Your task to perform on an android device: uninstall "Microsoft Excel" Image 0: 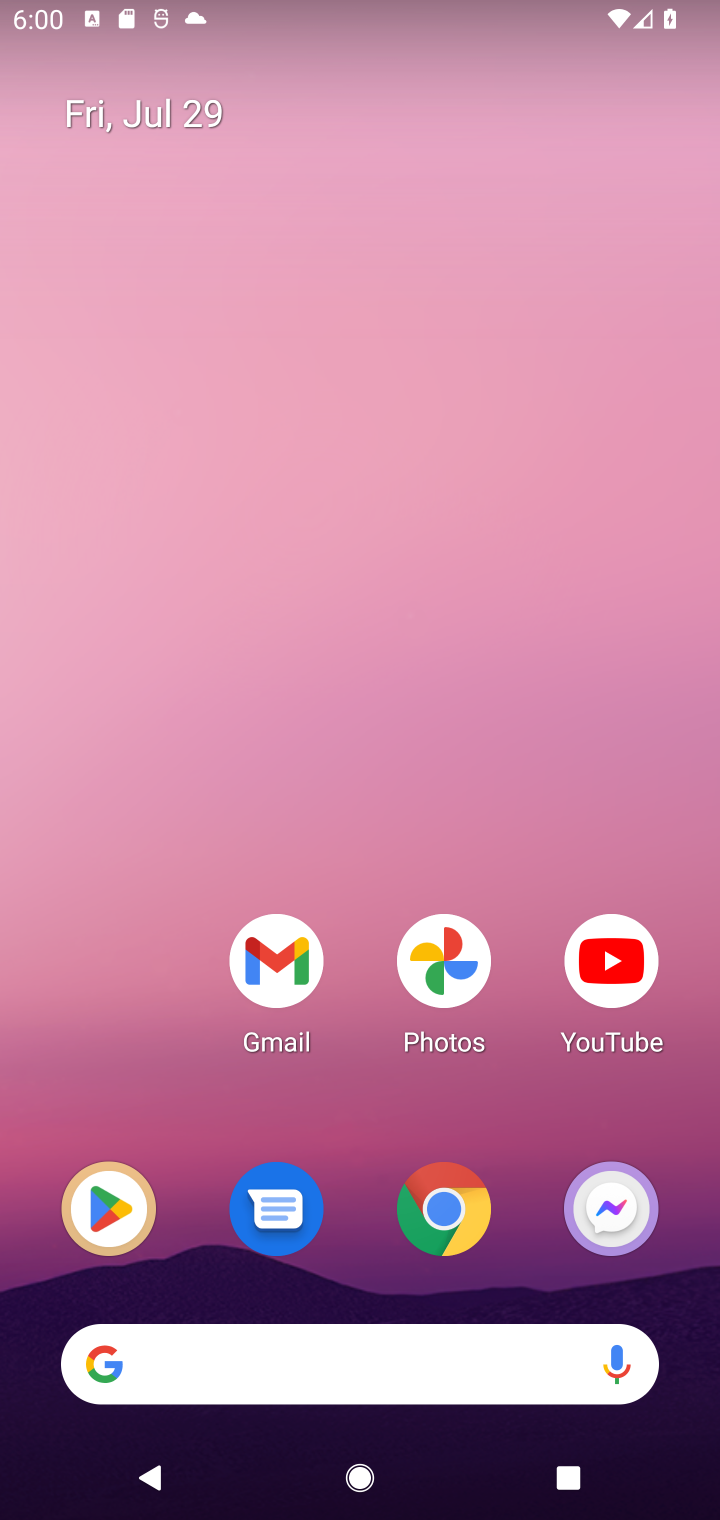
Step 0: click (117, 1219)
Your task to perform on an android device: uninstall "Microsoft Excel" Image 1: 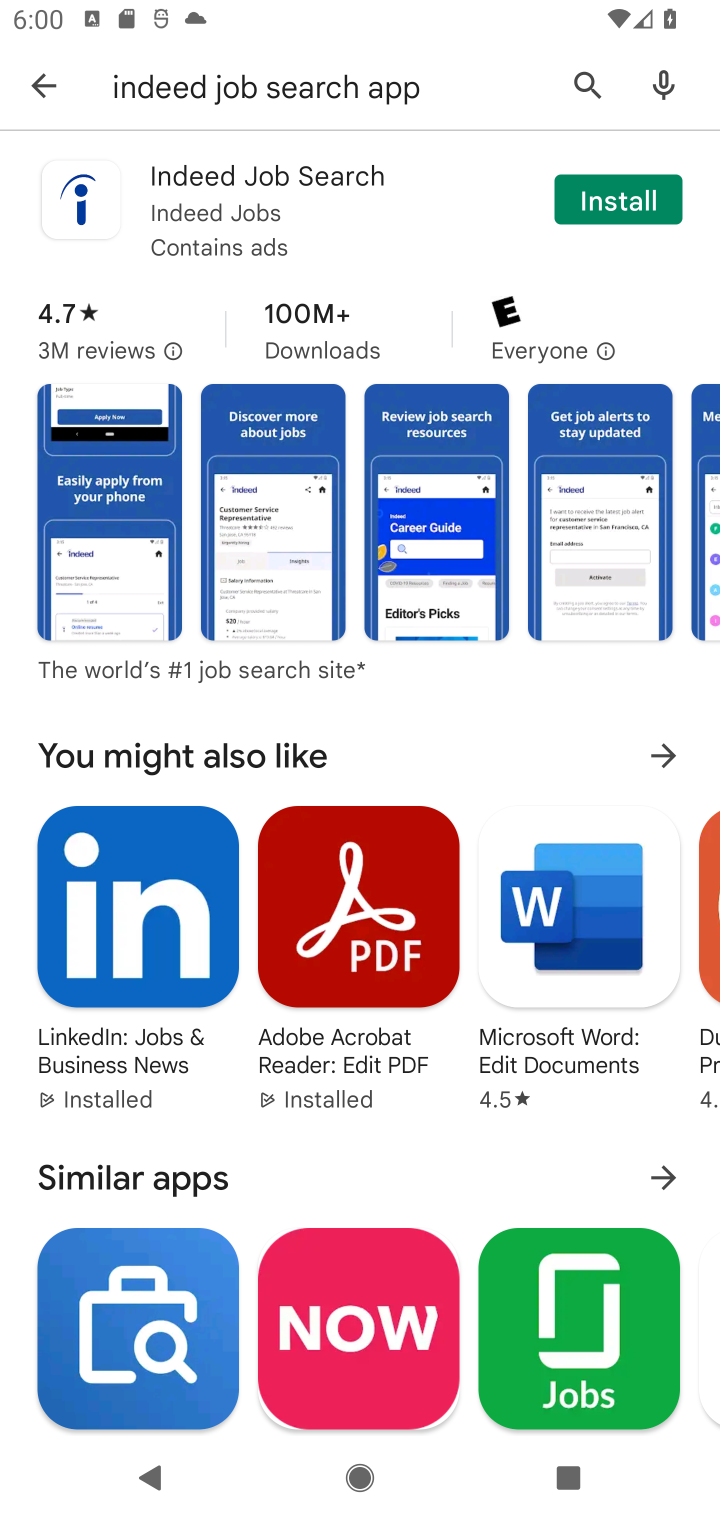
Step 1: click (592, 79)
Your task to perform on an android device: uninstall "Microsoft Excel" Image 2: 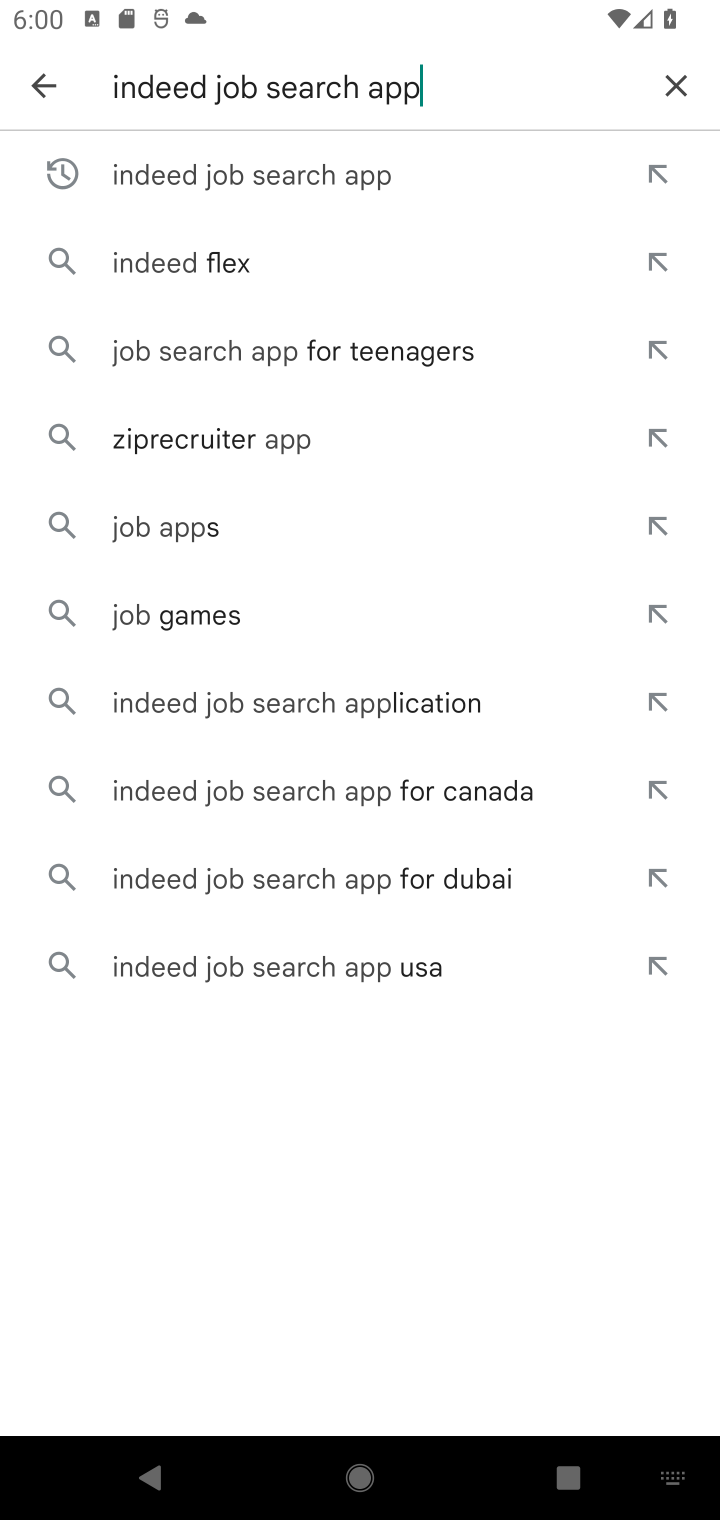
Step 2: click (675, 91)
Your task to perform on an android device: uninstall "Microsoft Excel" Image 3: 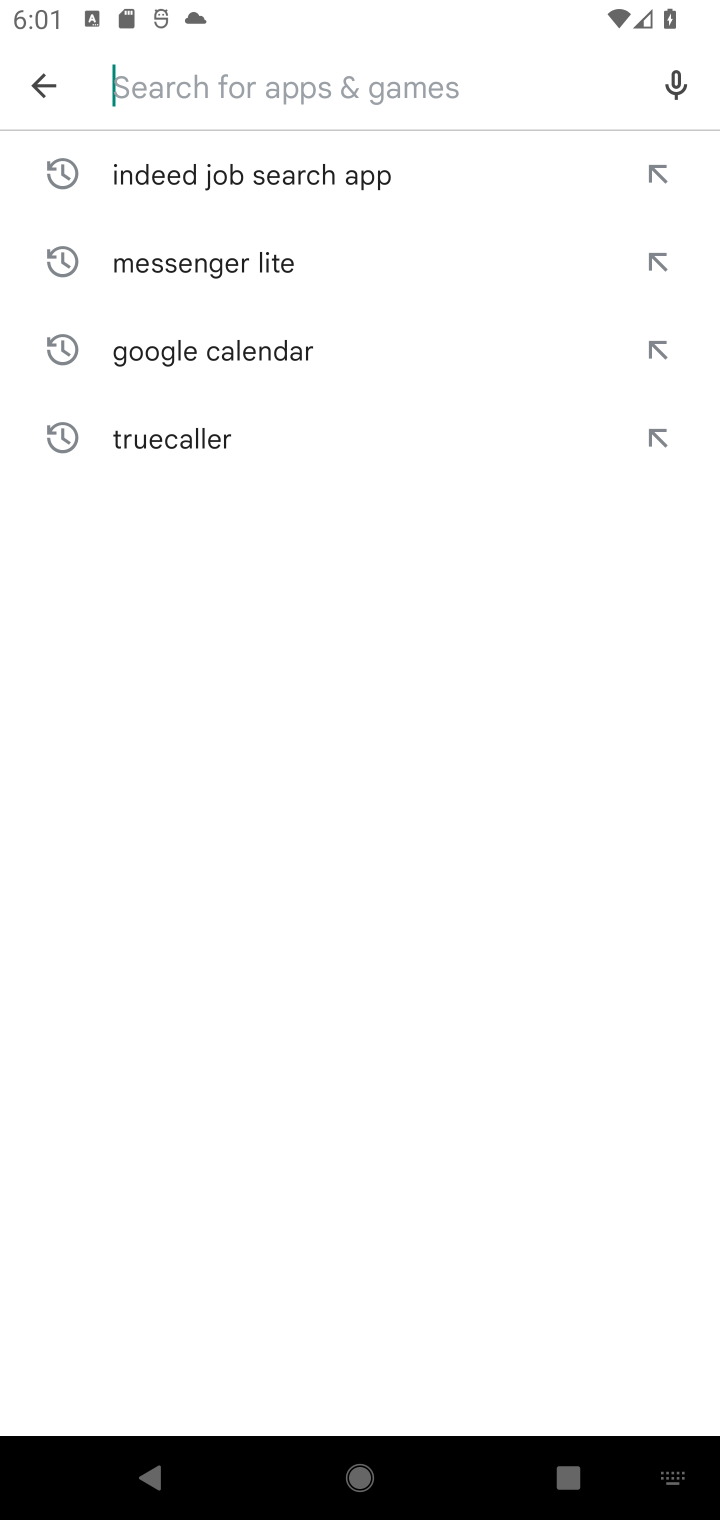
Step 3: type "Microsoft Excel"
Your task to perform on an android device: uninstall "Microsoft Excel" Image 4: 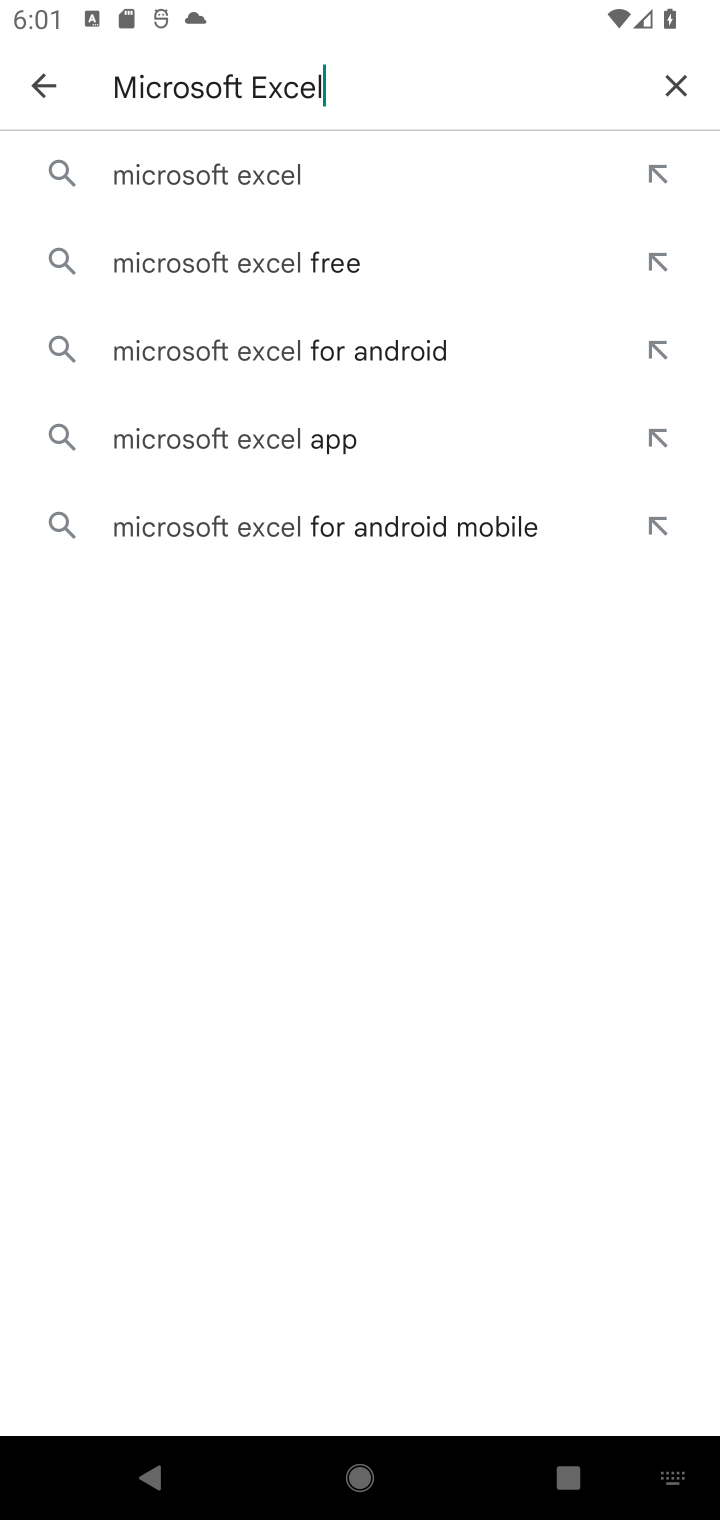
Step 4: click (189, 179)
Your task to perform on an android device: uninstall "Microsoft Excel" Image 5: 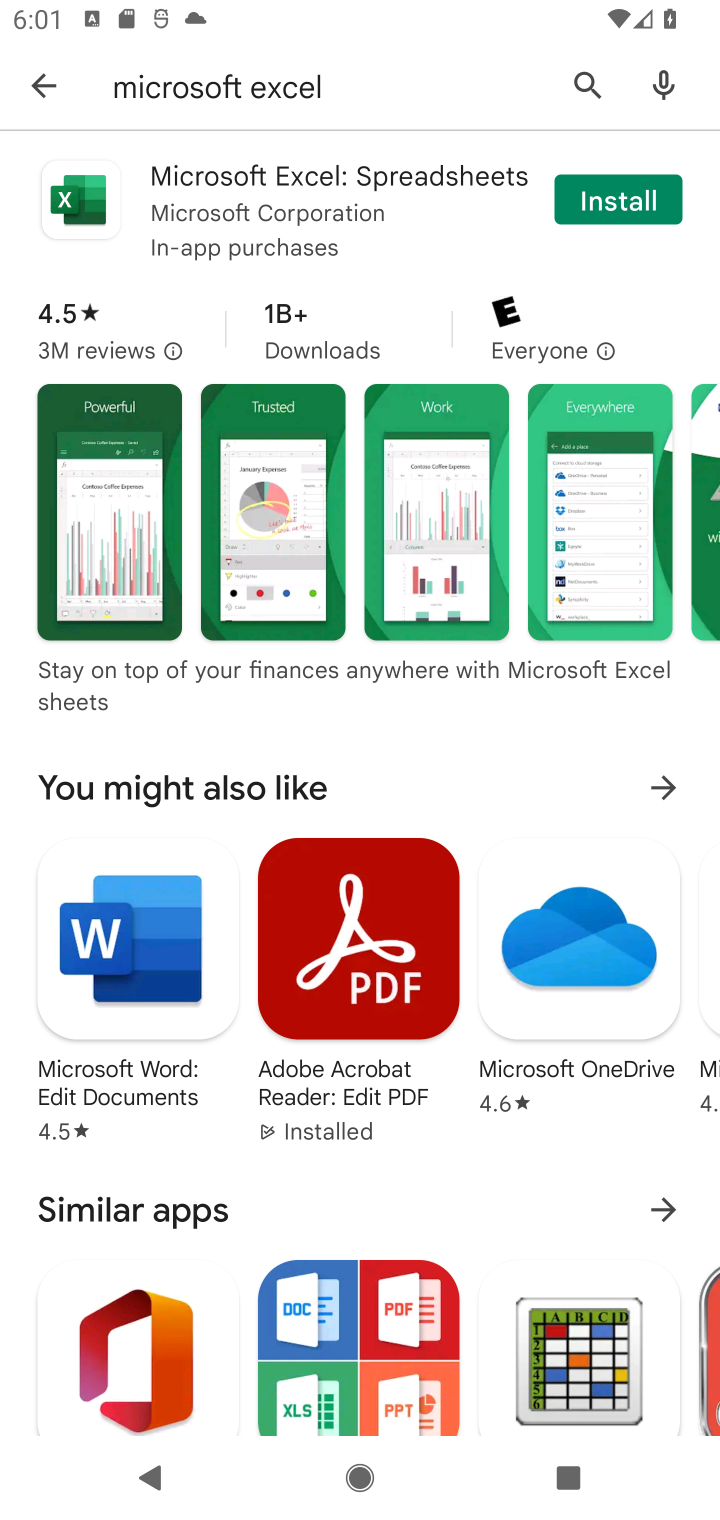
Step 5: task complete